Your task to perform on an android device: Search for seafood restaurants on Google Maps Image 0: 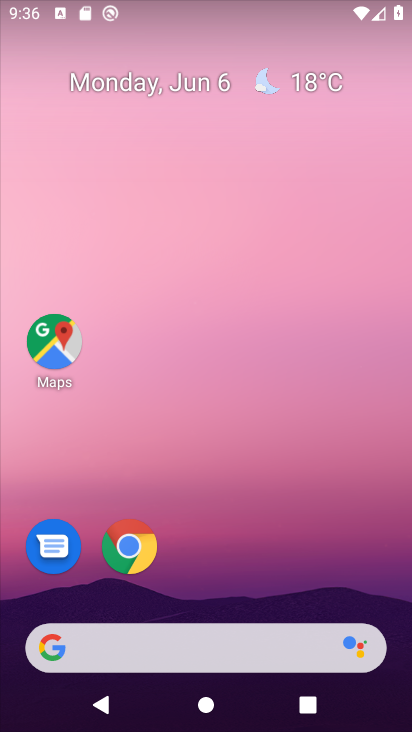
Step 0: click (58, 340)
Your task to perform on an android device: Search for seafood restaurants on Google Maps Image 1: 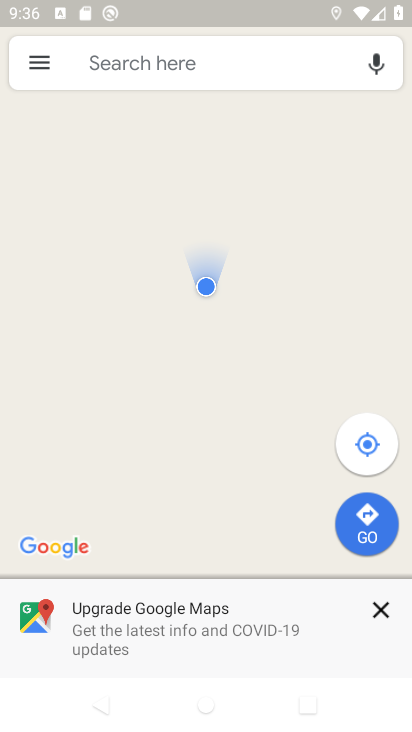
Step 1: click (140, 60)
Your task to perform on an android device: Search for seafood restaurants on Google Maps Image 2: 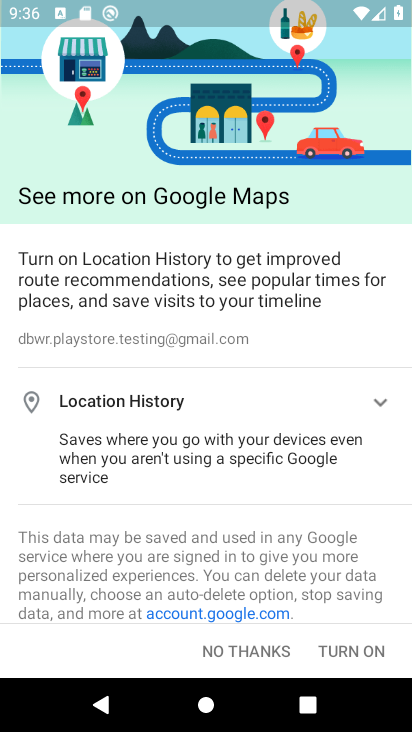
Step 2: click (241, 656)
Your task to perform on an android device: Search for seafood restaurants on Google Maps Image 3: 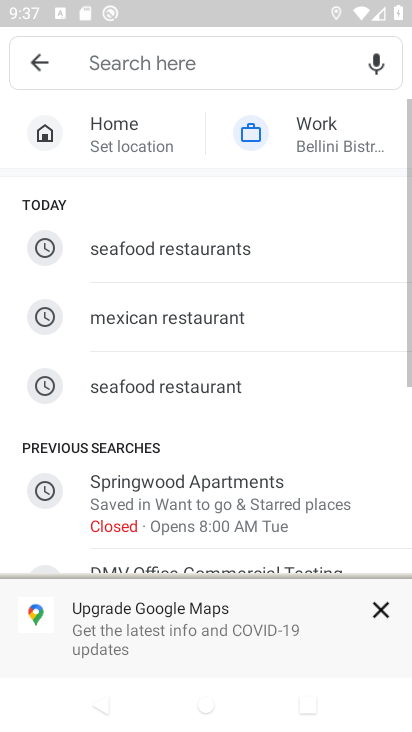
Step 3: click (131, 61)
Your task to perform on an android device: Search for seafood restaurants on Google Maps Image 4: 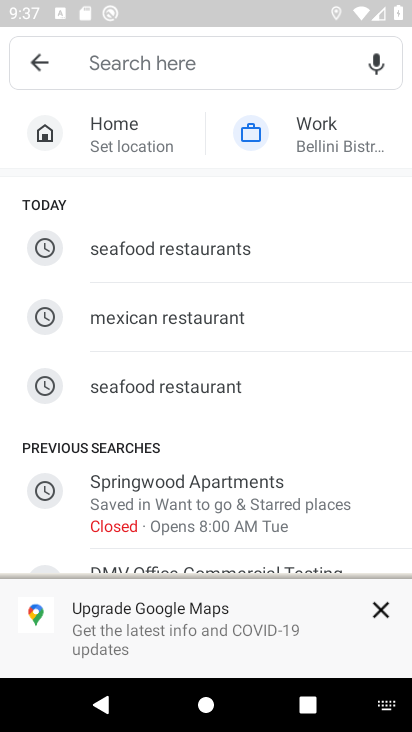
Step 4: type "seafood restaurants"
Your task to perform on an android device: Search for seafood restaurants on Google Maps Image 5: 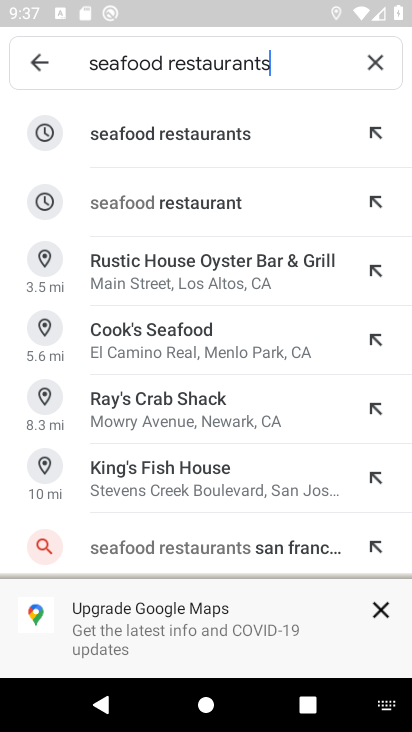
Step 5: click (176, 115)
Your task to perform on an android device: Search for seafood restaurants on Google Maps Image 6: 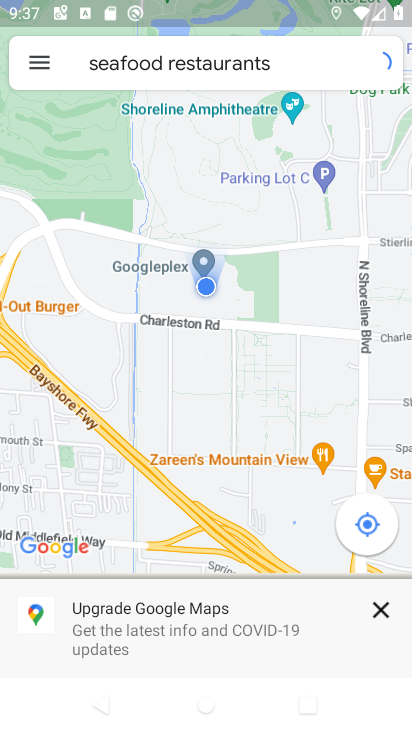
Step 6: task complete